Your task to perform on an android device: Open calendar and show me the third week of next month Image 0: 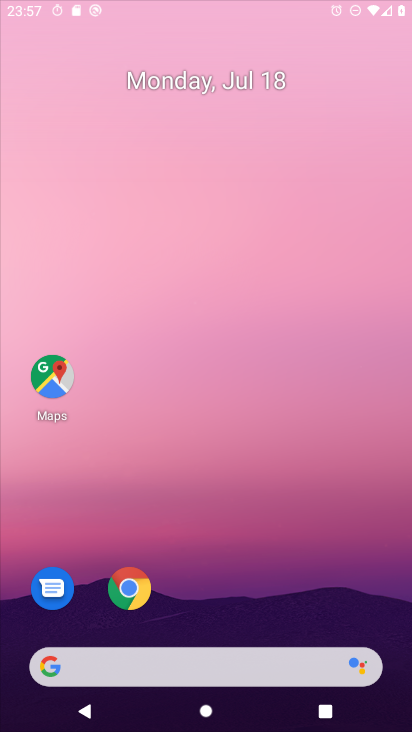
Step 0: press home button
Your task to perform on an android device: Open calendar and show me the third week of next month Image 1: 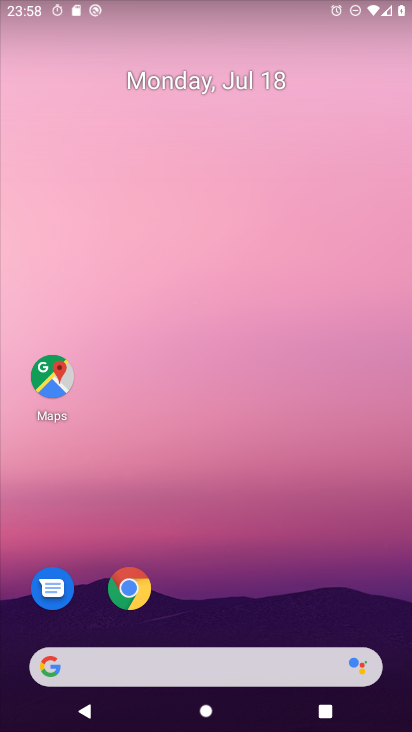
Step 1: drag from (168, 658) to (292, 168)
Your task to perform on an android device: Open calendar and show me the third week of next month Image 2: 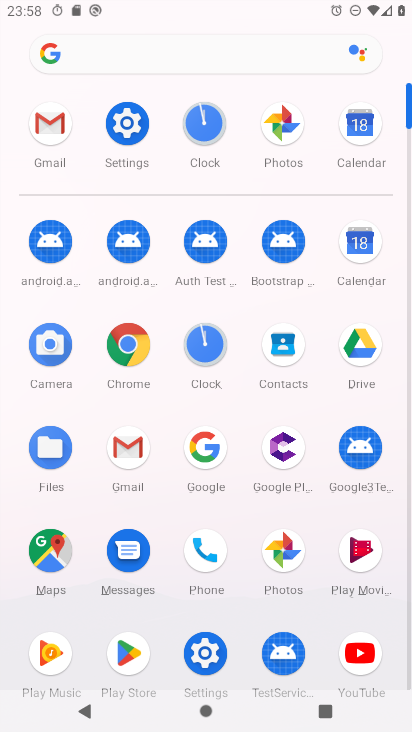
Step 2: click (45, 127)
Your task to perform on an android device: Open calendar and show me the third week of next month Image 3: 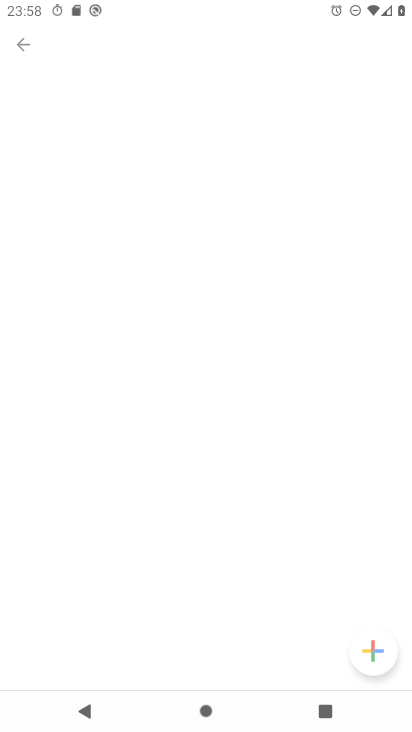
Step 3: press home button
Your task to perform on an android device: Open calendar and show me the third week of next month Image 4: 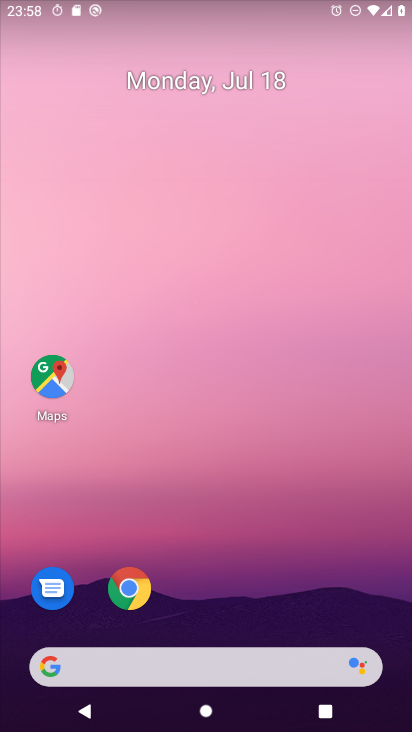
Step 4: drag from (128, 659) to (291, 104)
Your task to perform on an android device: Open calendar and show me the third week of next month Image 5: 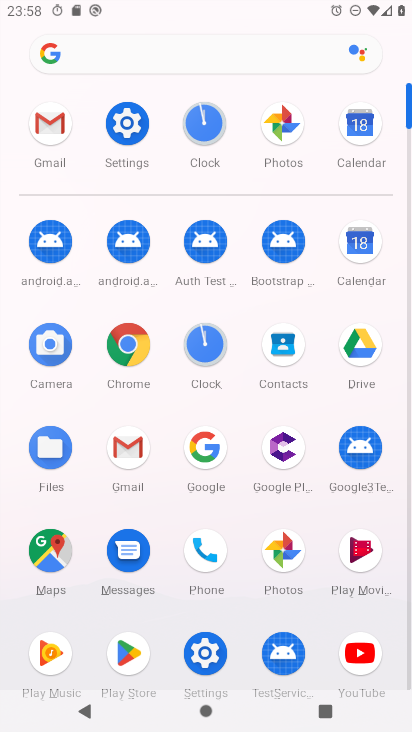
Step 5: click (366, 256)
Your task to perform on an android device: Open calendar and show me the third week of next month Image 6: 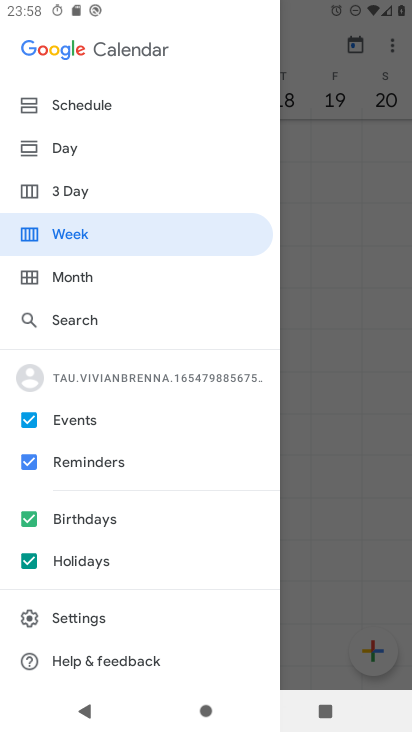
Step 6: task complete